Your task to perform on an android device: Open Maps and search for coffee Image 0: 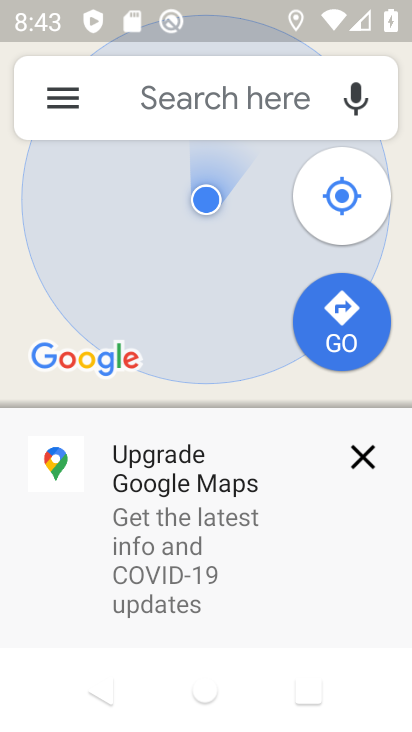
Step 0: click (192, 88)
Your task to perform on an android device: Open Maps and search for coffee Image 1: 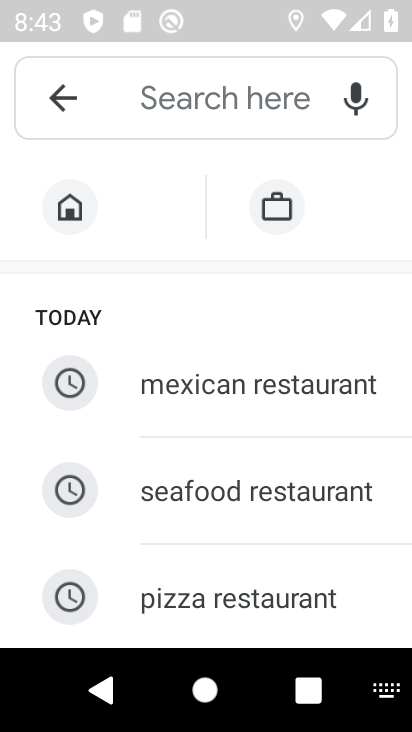
Step 1: type "coffee"
Your task to perform on an android device: Open Maps and search for coffee Image 2: 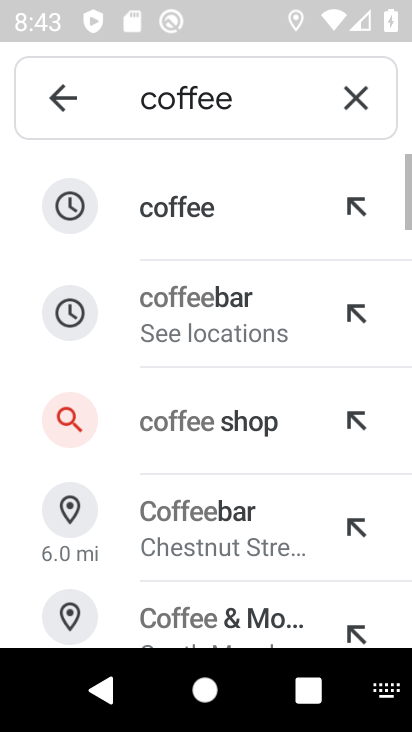
Step 2: click (205, 215)
Your task to perform on an android device: Open Maps and search for coffee Image 3: 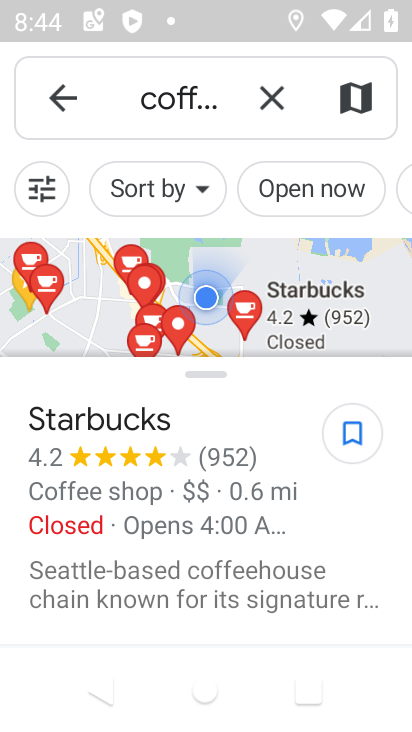
Step 3: task complete